Your task to perform on an android device: Open the phone app and click the voicemail tab. Image 0: 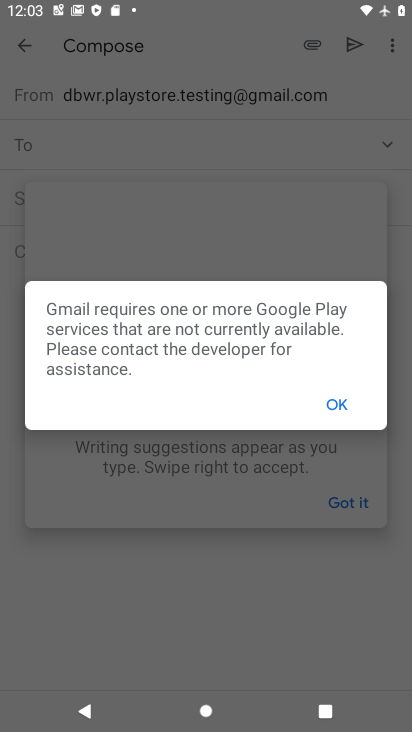
Step 0: drag from (191, 672) to (228, 559)
Your task to perform on an android device: Open the phone app and click the voicemail tab. Image 1: 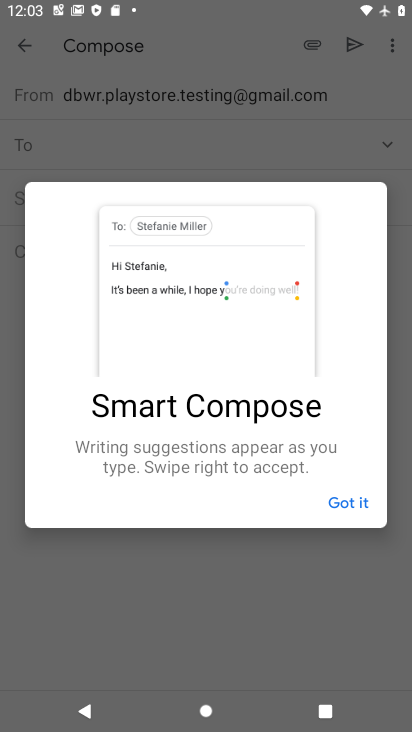
Step 1: press home button
Your task to perform on an android device: Open the phone app and click the voicemail tab. Image 2: 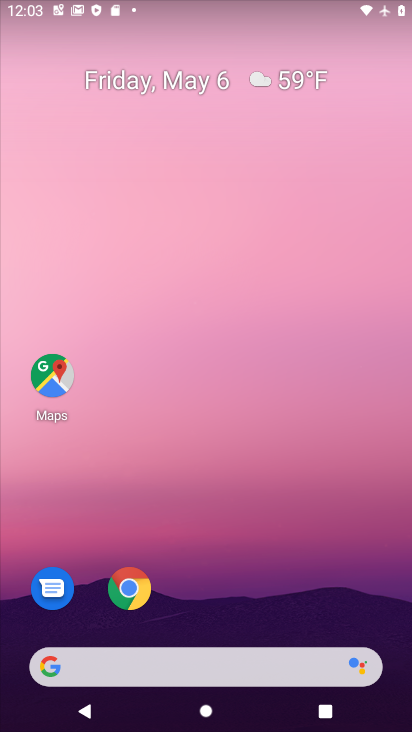
Step 2: drag from (214, 667) to (382, 228)
Your task to perform on an android device: Open the phone app and click the voicemail tab. Image 3: 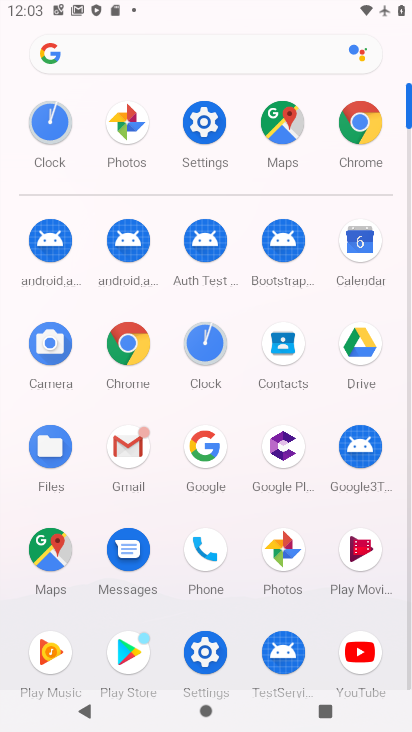
Step 3: click (210, 561)
Your task to perform on an android device: Open the phone app and click the voicemail tab. Image 4: 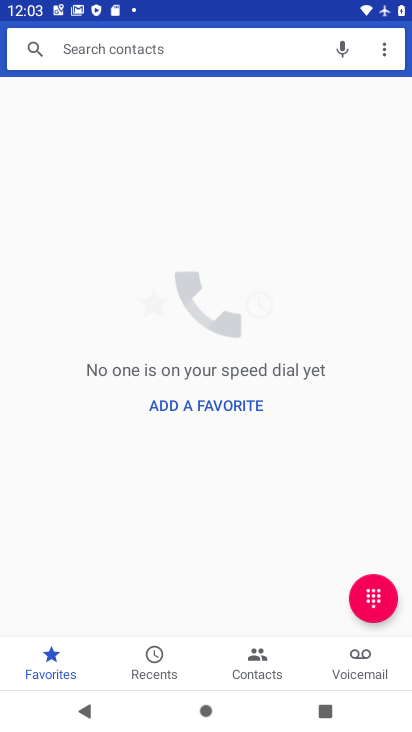
Step 4: click (370, 671)
Your task to perform on an android device: Open the phone app and click the voicemail tab. Image 5: 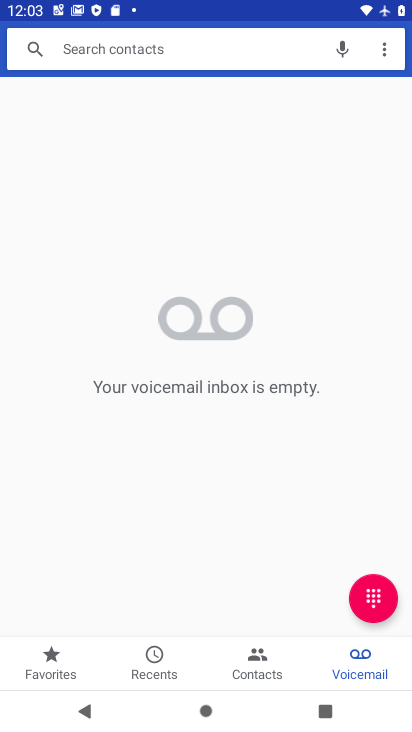
Step 5: task complete